Your task to perform on an android device: turn notification dots on Image 0: 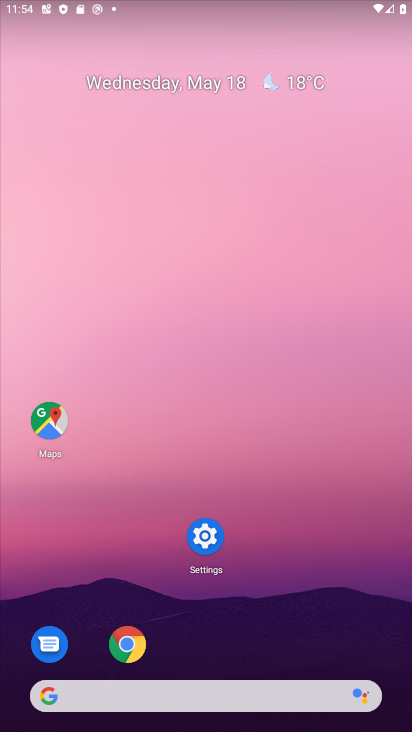
Step 0: drag from (309, 597) to (290, 30)
Your task to perform on an android device: turn notification dots on Image 1: 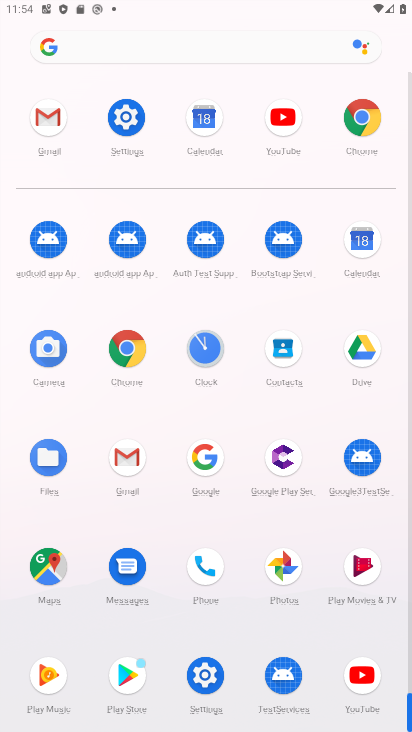
Step 1: click (124, 123)
Your task to perform on an android device: turn notification dots on Image 2: 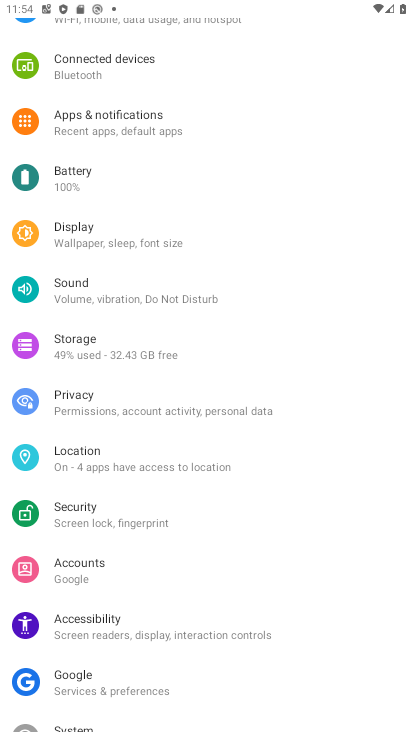
Step 2: click (116, 131)
Your task to perform on an android device: turn notification dots on Image 3: 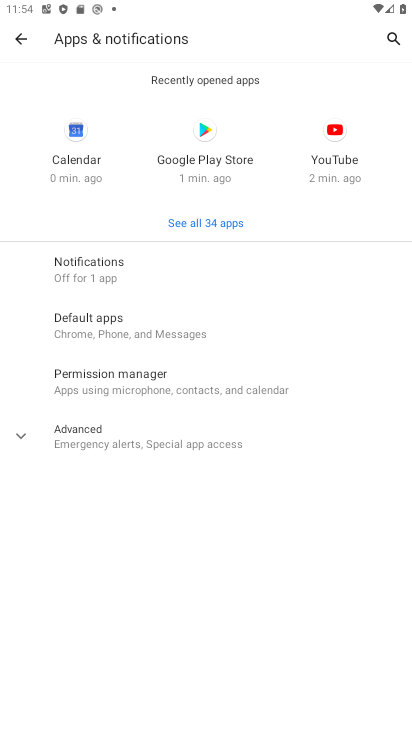
Step 3: click (124, 259)
Your task to perform on an android device: turn notification dots on Image 4: 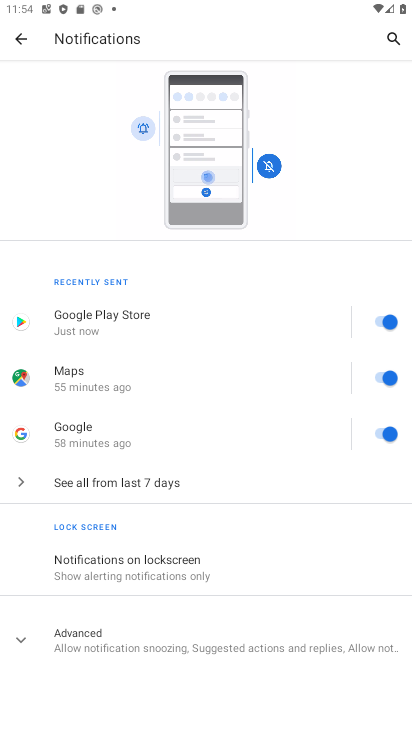
Step 4: drag from (247, 542) to (271, 171)
Your task to perform on an android device: turn notification dots on Image 5: 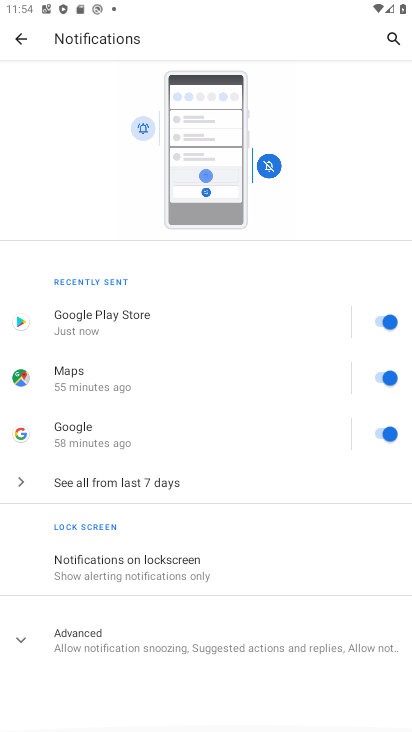
Step 5: click (165, 655)
Your task to perform on an android device: turn notification dots on Image 6: 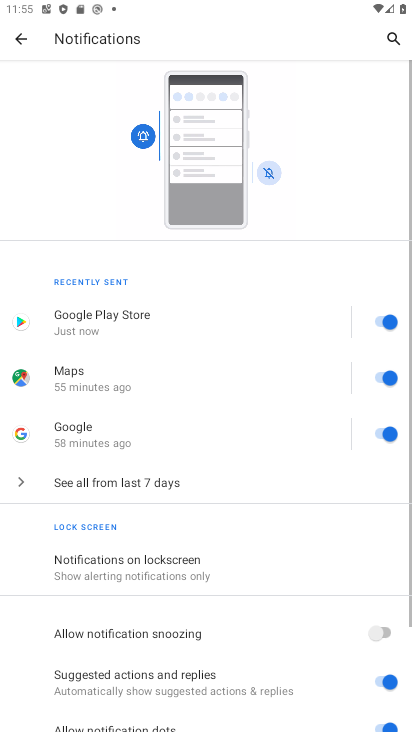
Step 6: drag from (225, 667) to (263, 172)
Your task to perform on an android device: turn notification dots on Image 7: 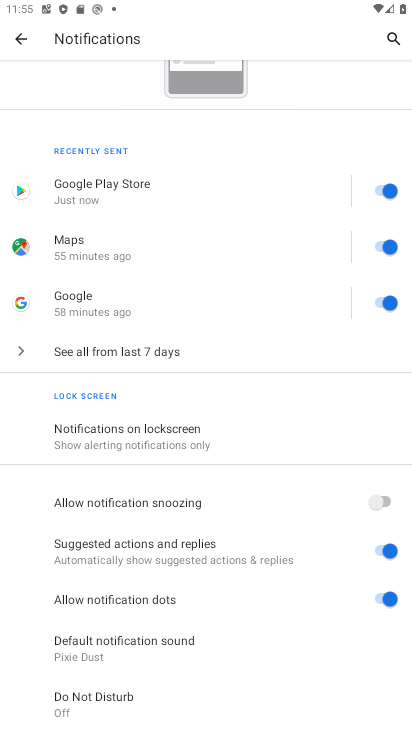
Step 7: click (373, 600)
Your task to perform on an android device: turn notification dots on Image 8: 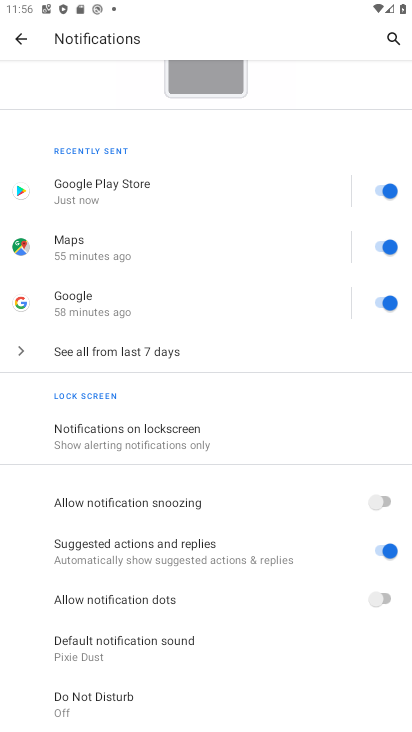
Step 8: task complete